Your task to perform on an android device: turn off picture-in-picture Image 0: 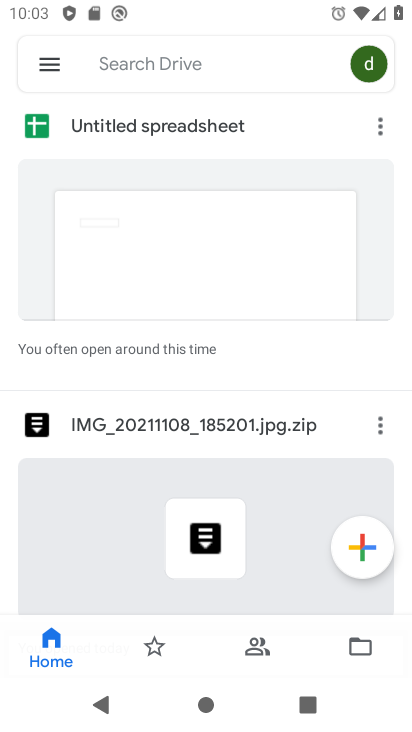
Step 0: press home button
Your task to perform on an android device: turn off picture-in-picture Image 1: 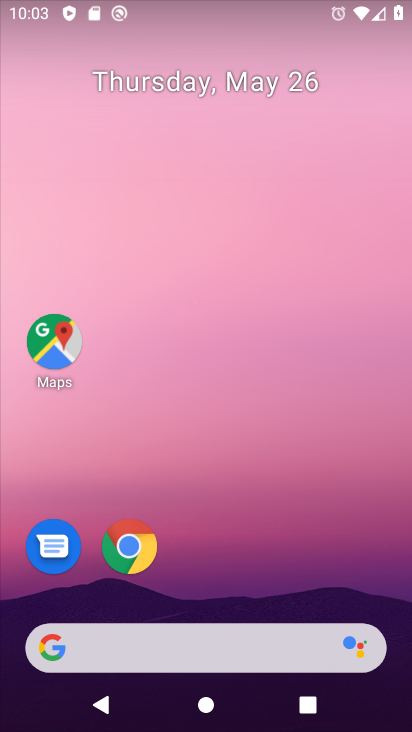
Step 1: click (128, 546)
Your task to perform on an android device: turn off picture-in-picture Image 2: 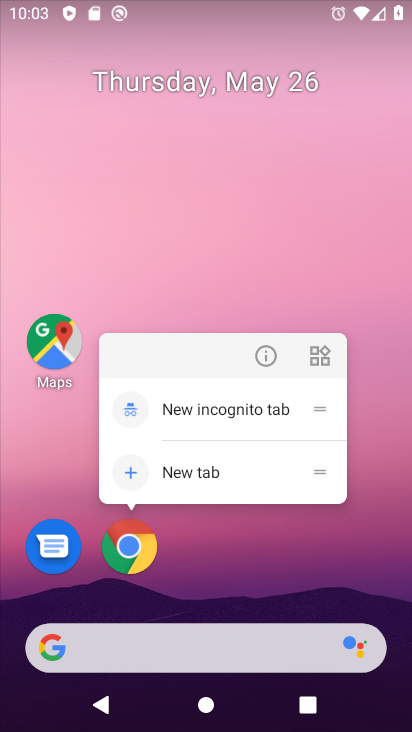
Step 2: click (264, 355)
Your task to perform on an android device: turn off picture-in-picture Image 3: 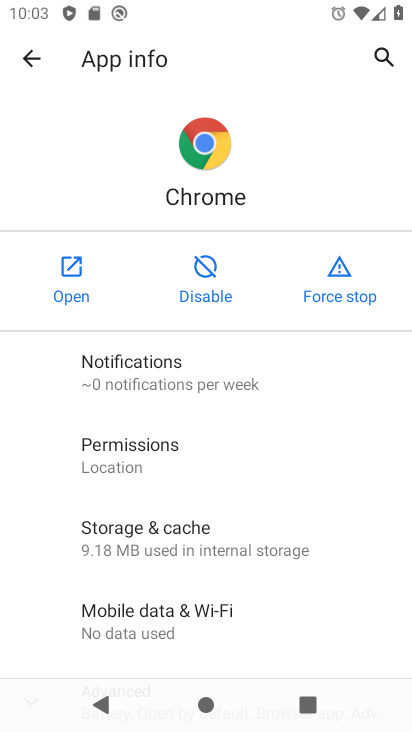
Step 3: drag from (170, 578) to (220, 482)
Your task to perform on an android device: turn off picture-in-picture Image 4: 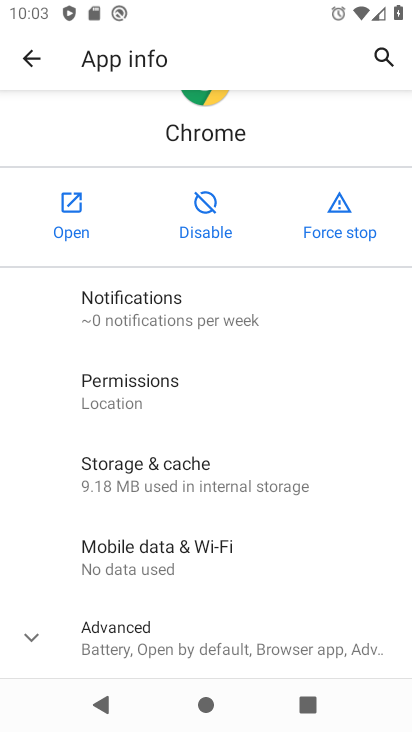
Step 4: click (150, 654)
Your task to perform on an android device: turn off picture-in-picture Image 5: 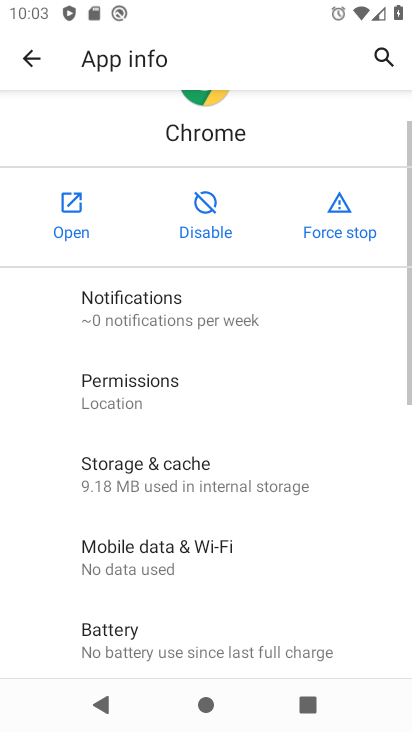
Step 5: drag from (154, 618) to (193, 521)
Your task to perform on an android device: turn off picture-in-picture Image 6: 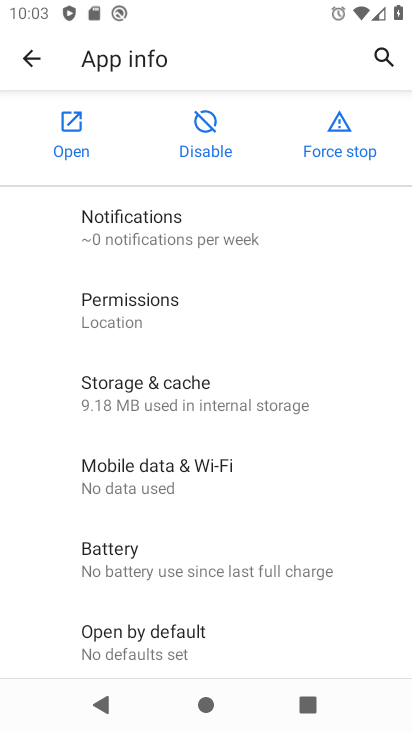
Step 6: drag from (143, 597) to (207, 509)
Your task to perform on an android device: turn off picture-in-picture Image 7: 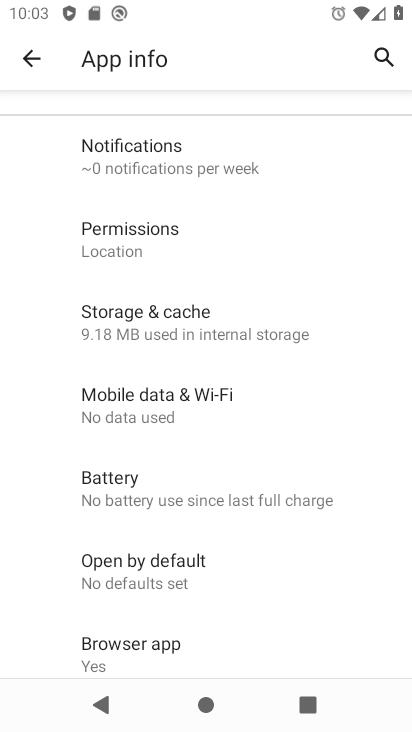
Step 7: drag from (149, 622) to (208, 532)
Your task to perform on an android device: turn off picture-in-picture Image 8: 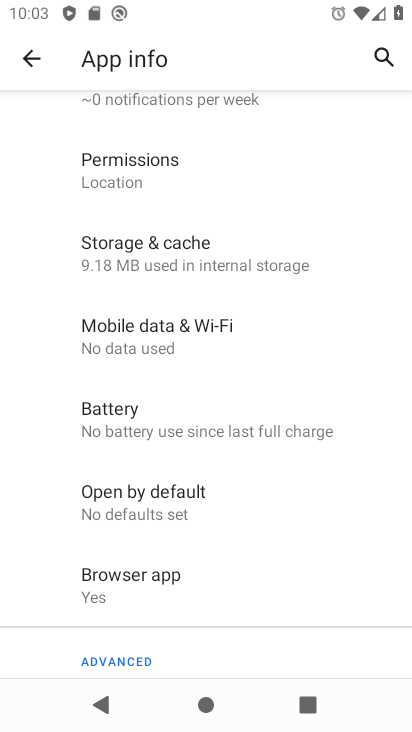
Step 8: drag from (146, 607) to (235, 509)
Your task to perform on an android device: turn off picture-in-picture Image 9: 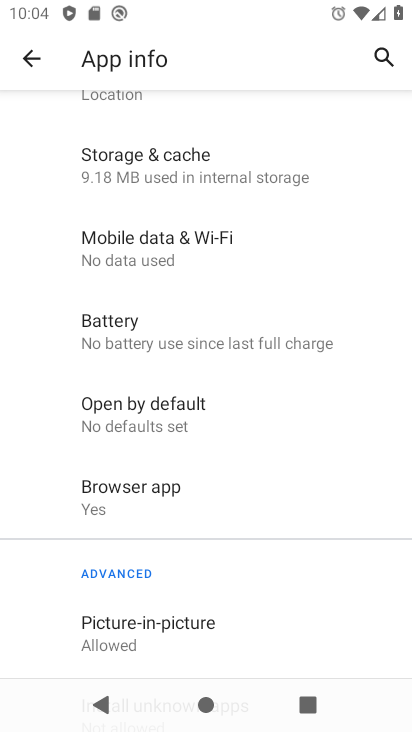
Step 9: drag from (154, 599) to (235, 480)
Your task to perform on an android device: turn off picture-in-picture Image 10: 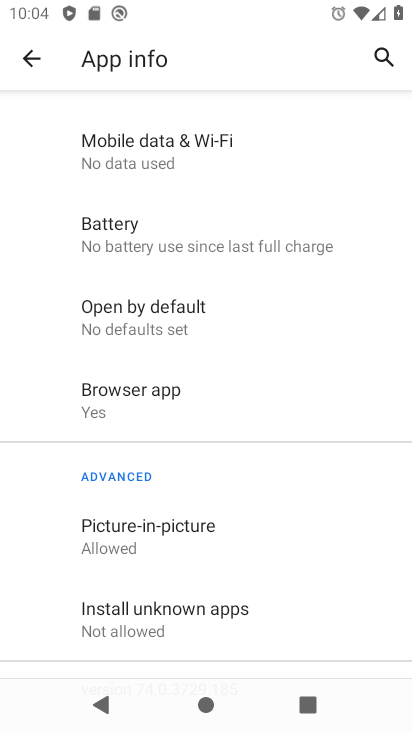
Step 10: click (196, 533)
Your task to perform on an android device: turn off picture-in-picture Image 11: 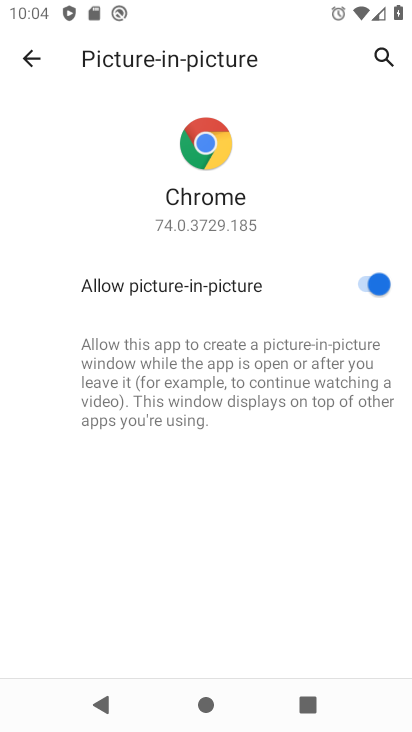
Step 11: click (377, 286)
Your task to perform on an android device: turn off picture-in-picture Image 12: 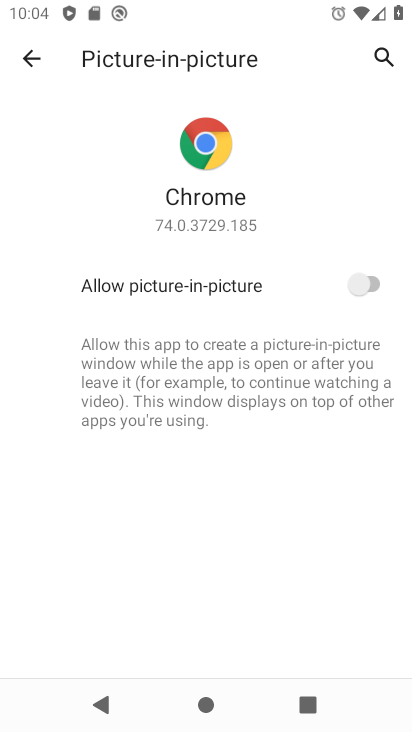
Step 12: task complete